Your task to perform on an android device: Show me recent news Image 0: 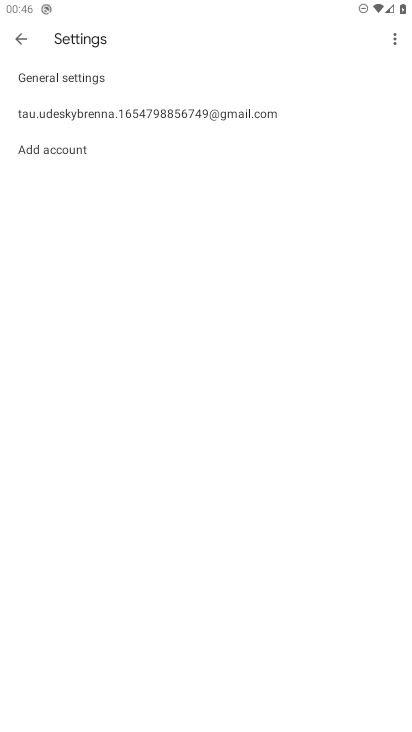
Step 0: press home button
Your task to perform on an android device: Show me recent news Image 1: 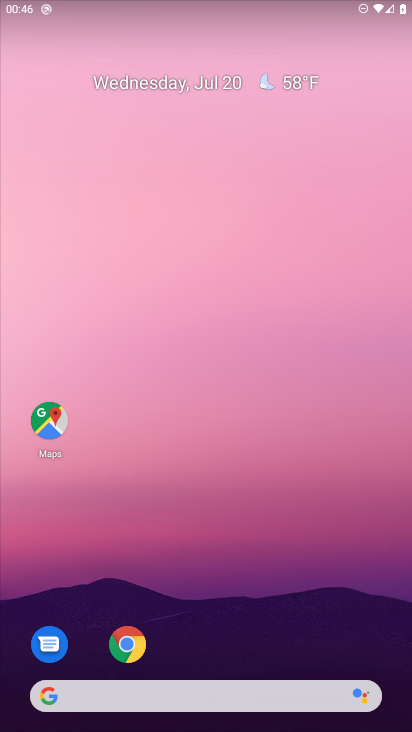
Step 1: click (93, 687)
Your task to perform on an android device: Show me recent news Image 2: 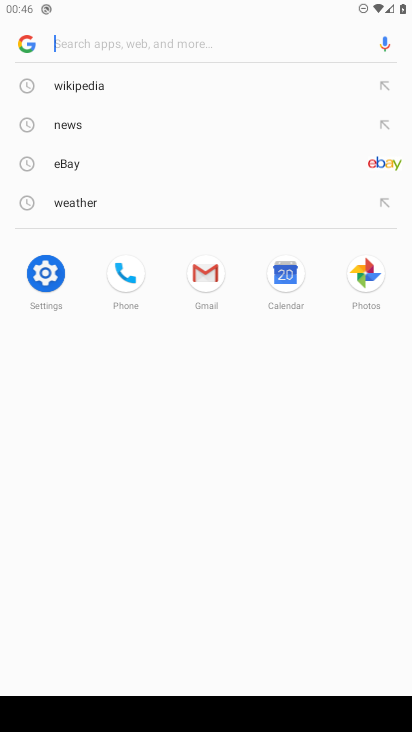
Step 2: click (104, 48)
Your task to perform on an android device: Show me recent news Image 3: 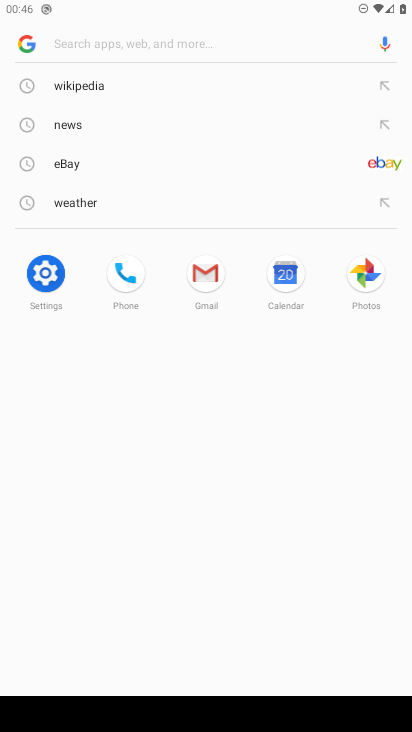
Step 3: type "recent news"
Your task to perform on an android device: Show me recent news Image 4: 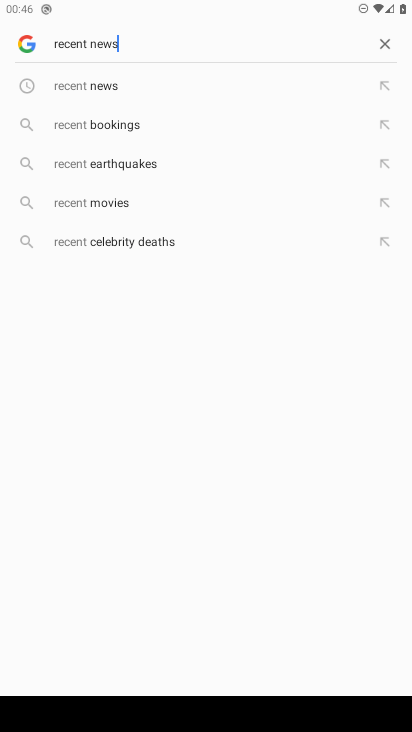
Step 4: type ""
Your task to perform on an android device: Show me recent news Image 5: 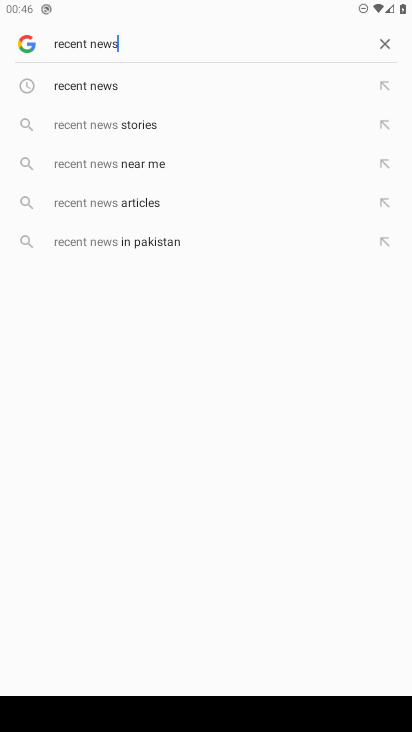
Step 5: click (60, 89)
Your task to perform on an android device: Show me recent news Image 6: 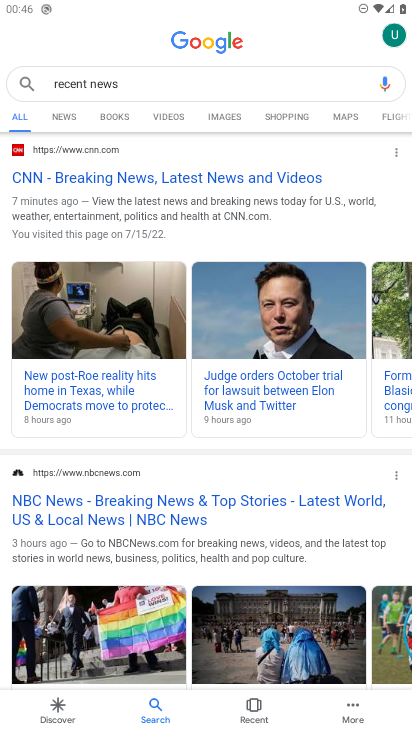
Step 6: task complete